Your task to perform on an android device: delete location history Image 0: 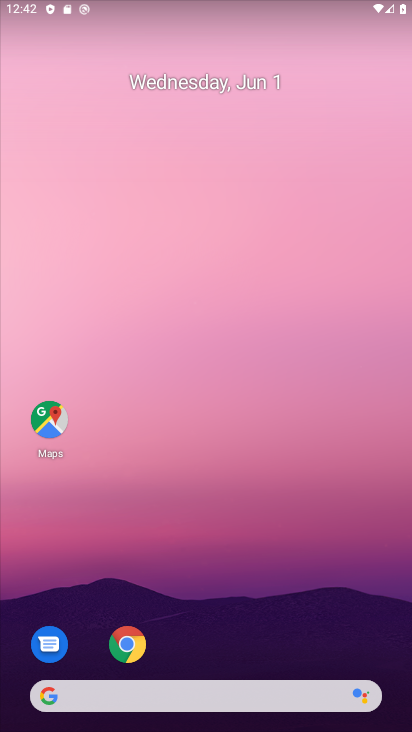
Step 0: drag from (180, 680) to (131, 66)
Your task to perform on an android device: delete location history Image 1: 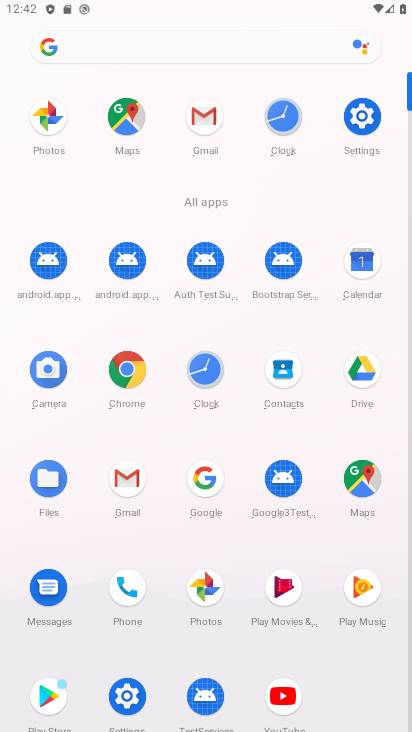
Step 1: click (116, 110)
Your task to perform on an android device: delete location history Image 2: 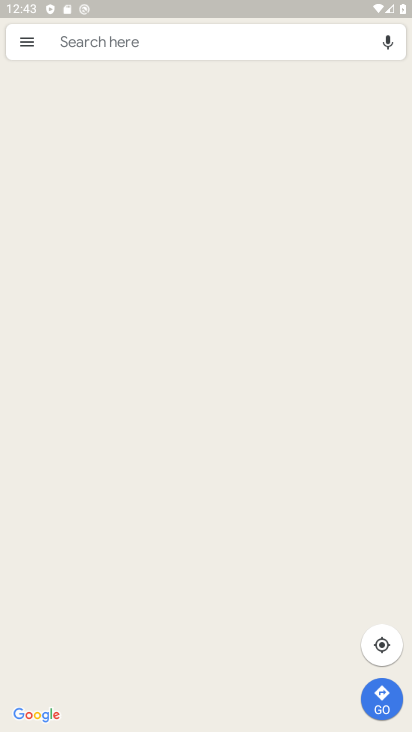
Step 2: click (26, 39)
Your task to perform on an android device: delete location history Image 3: 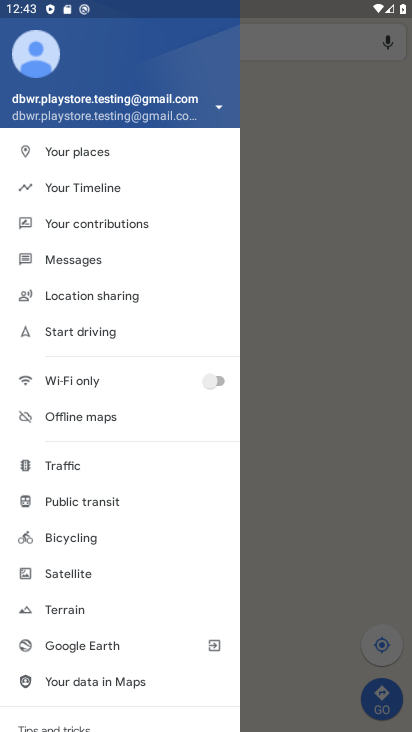
Step 3: drag from (132, 574) to (85, 132)
Your task to perform on an android device: delete location history Image 4: 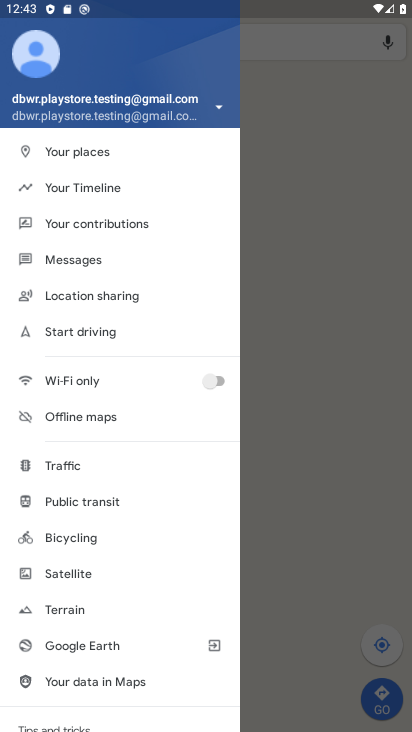
Step 4: click (61, 177)
Your task to perform on an android device: delete location history Image 5: 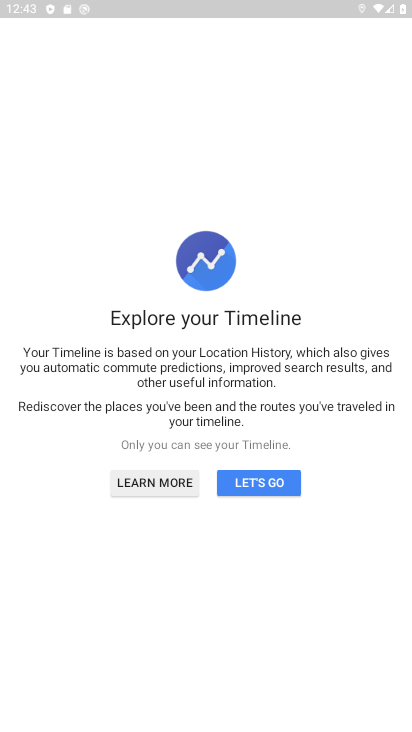
Step 5: click (260, 489)
Your task to perform on an android device: delete location history Image 6: 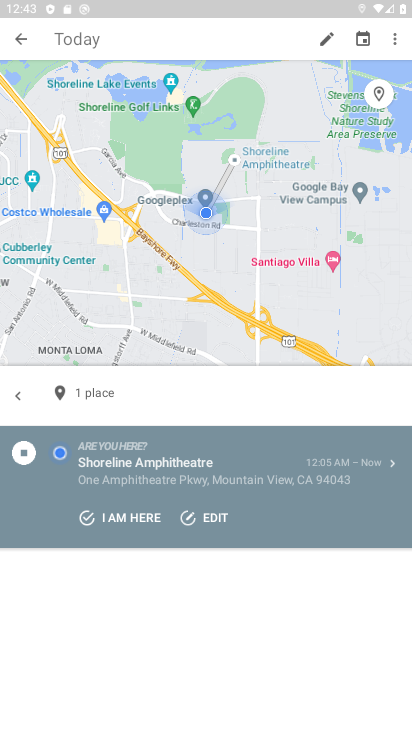
Step 6: click (389, 35)
Your task to perform on an android device: delete location history Image 7: 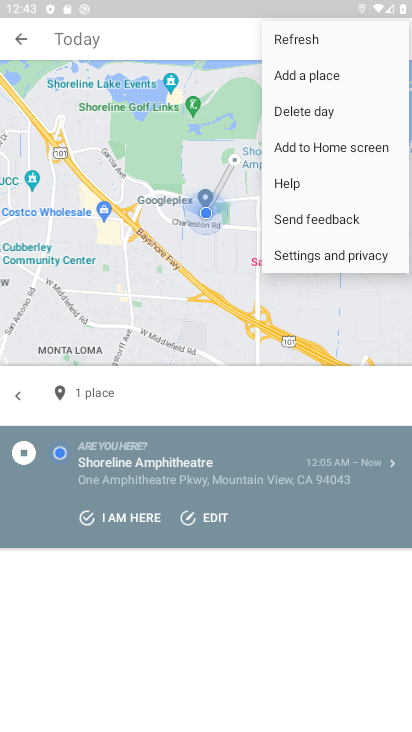
Step 7: click (305, 261)
Your task to perform on an android device: delete location history Image 8: 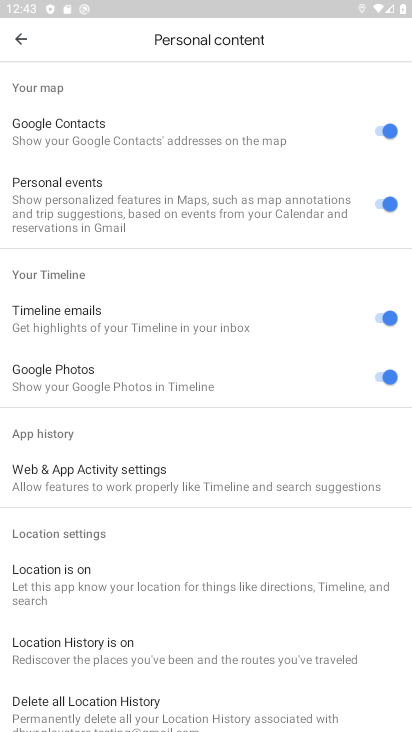
Step 8: click (99, 718)
Your task to perform on an android device: delete location history Image 9: 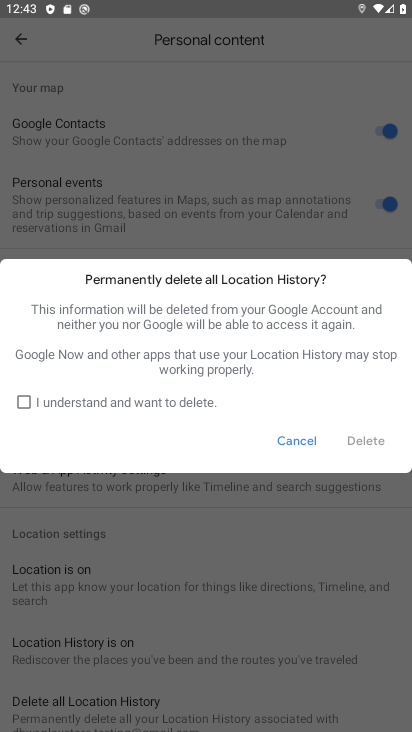
Step 9: click (14, 402)
Your task to perform on an android device: delete location history Image 10: 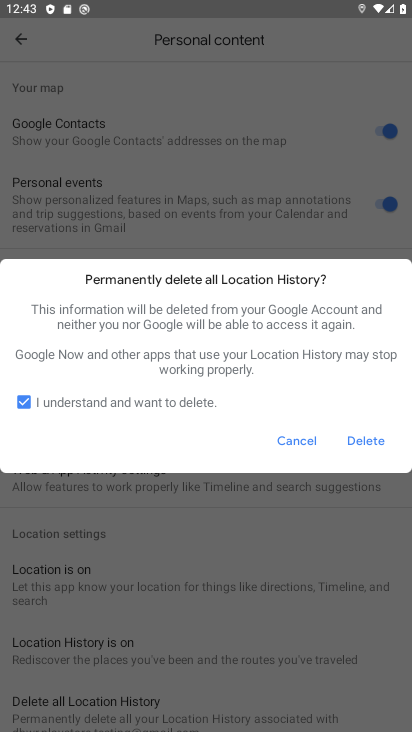
Step 10: click (361, 436)
Your task to perform on an android device: delete location history Image 11: 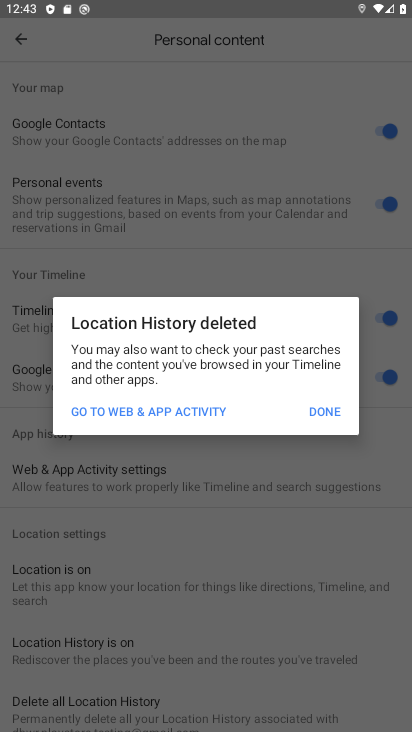
Step 11: click (303, 412)
Your task to perform on an android device: delete location history Image 12: 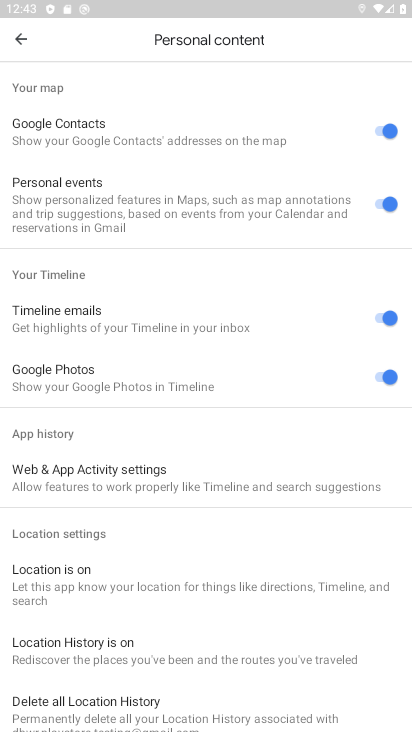
Step 12: task complete